Your task to perform on an android device: change notification settings in the gmail app Image 0: 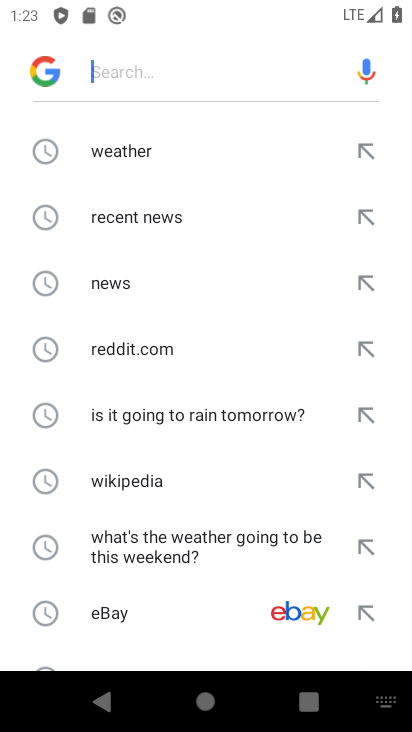
Step 0: press home button
Your task to perform on an android device: change notification settings in the gmail app Image 1: 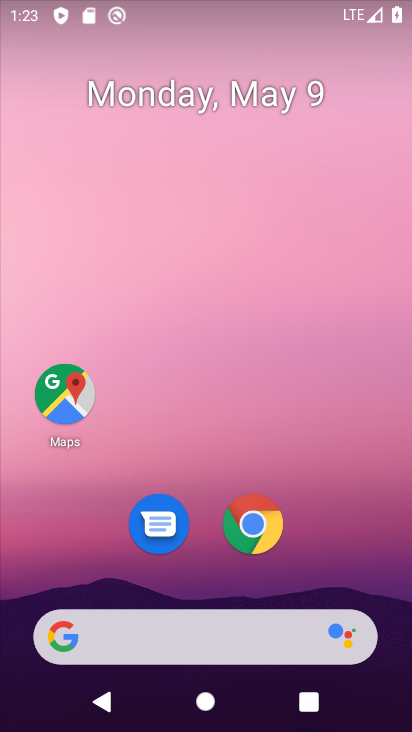
Step 1: drag from (235, 479) to (279, 67)
Your task to perform on an android device: change notification settings in the gmail app Image 2: 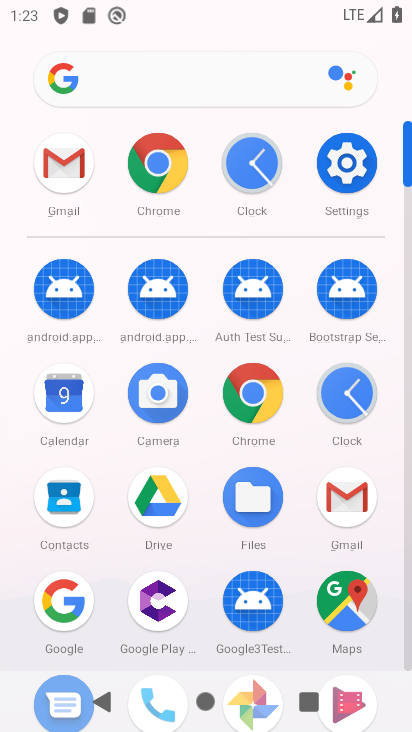
Step 2: click (71, 163)
Your task to perform on an android device: change notification settings in the gmail app Image 3: 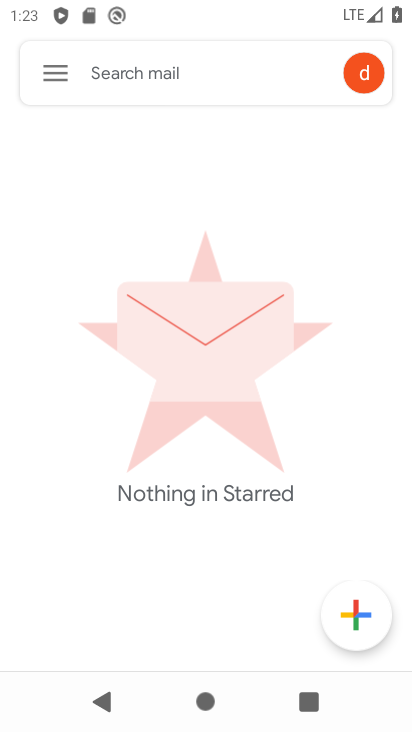
Step 3: click (55, 72)
Your task to perform on an android device: change notification settings in the gmail app Image 4: 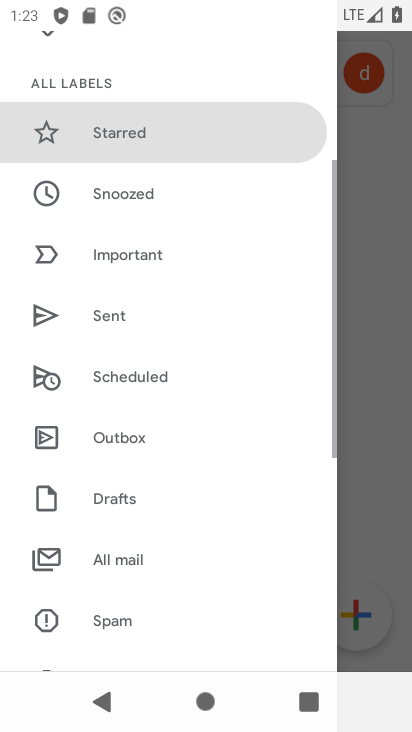
Step 4: drag from (192, 548) to (185, 135)
Your task to perform on an android device: change notification settings in the gmail app Image 5: 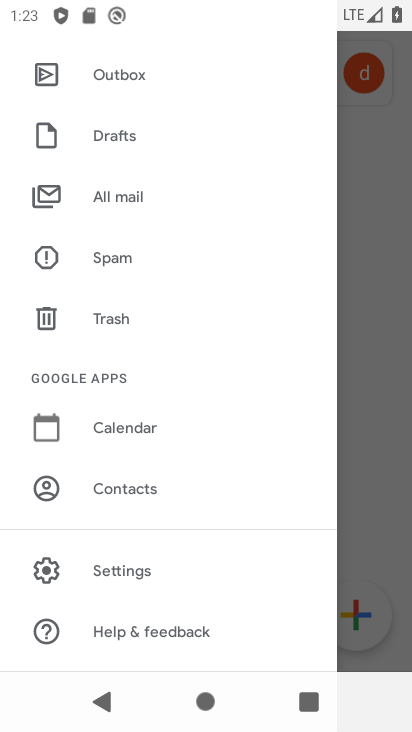
Step 5: click (142, 572)
Your task to perform on an android device: change notification settings in the gmail app Image 6: 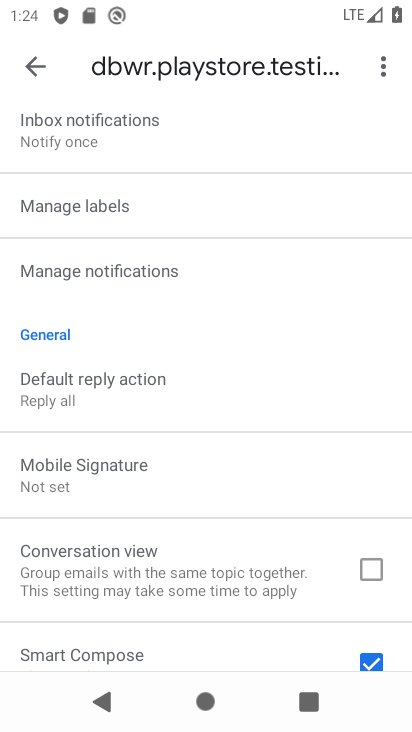
Step 6: click (212, 269)
Your task to perform on an android device: change notification settings in the gmail app Image 7: 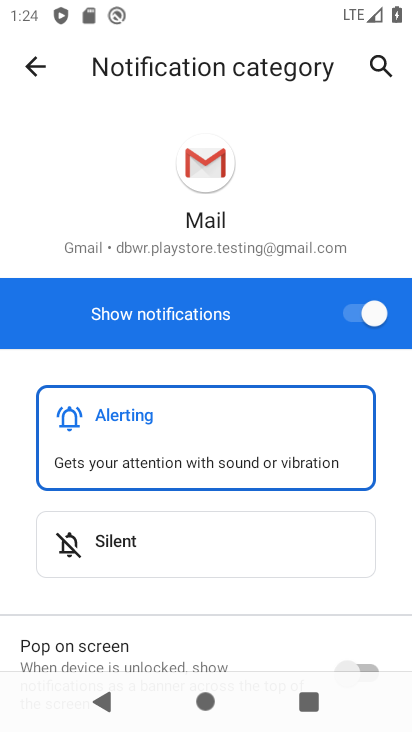
Step 7: click (346, 309)
Your task to perform on an android device: change notification settings in the gmail app Image 8: 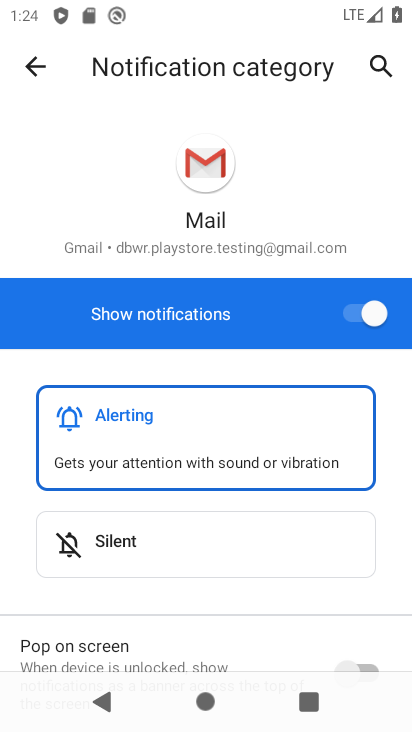
Step 8: click (368, 305)
Your task to perform on an android device: change notification settings in the gmail app Image 9: 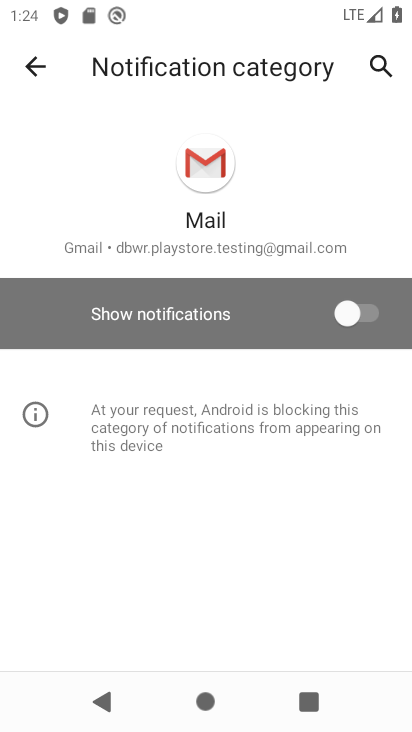
Step 9: task complete